Your task to perform on an android device: turn on bluetooth scan Image 0: 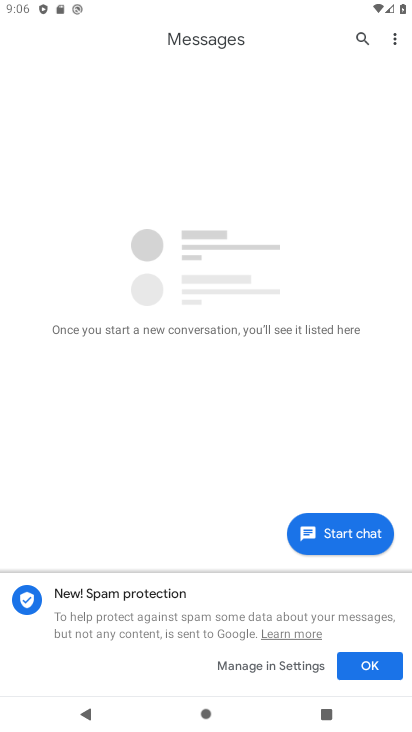
Step 0: press home button
Your task to perform on an android device: turn on bluetooth scan Image 1: 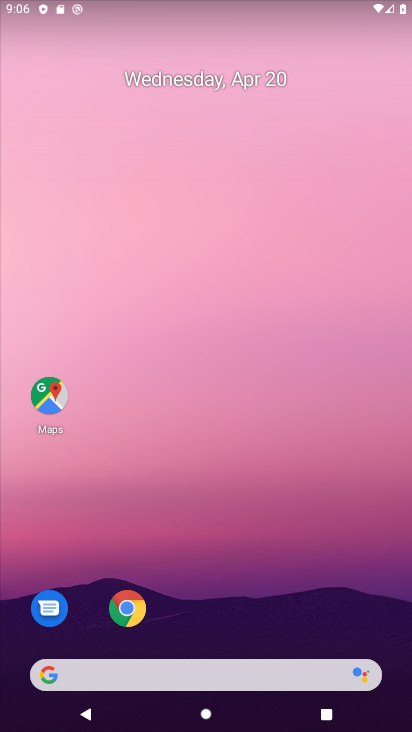
Step 1: drag from (212, 574) to (231, 9)
Your task to perform on an android device: turn on bluetooth scan Image 2: 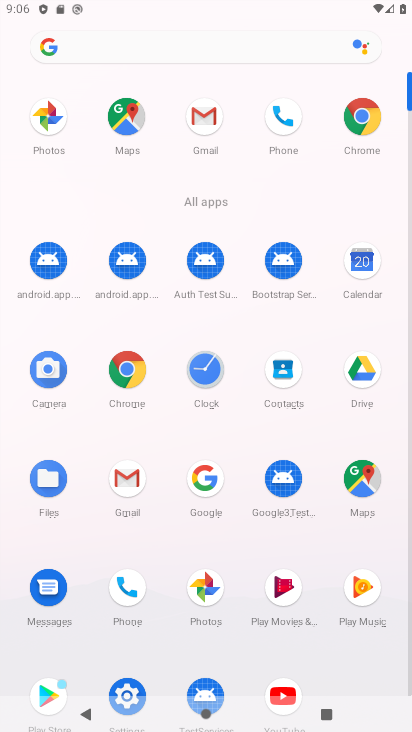
Step 2: click (119, 689)
Your task to perform on an android device: turn on bluetooth scan Image 3: 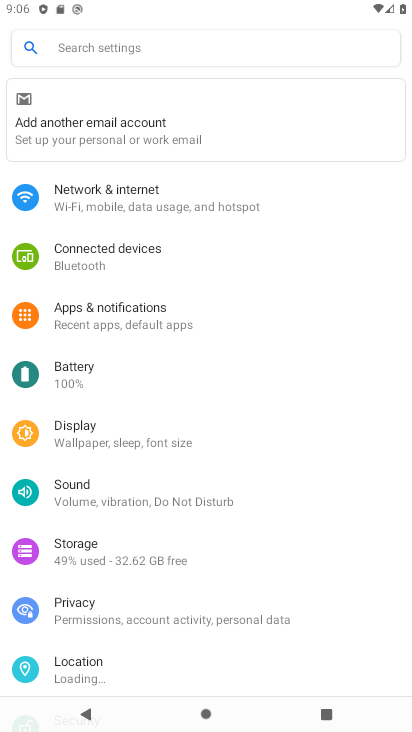
Step 3: click (77, 671)
Your task to perform on an android device: turn on bluetooth scan Image 4: 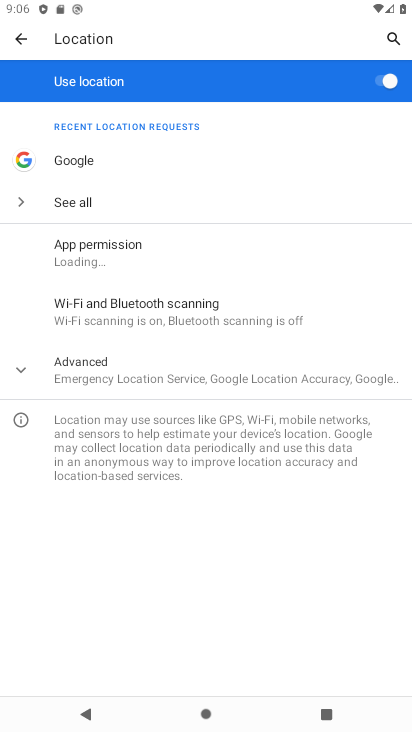
Step 4: click (169, 325)
Your task to perform on an android device: turn on bluetooth scan Image 5: 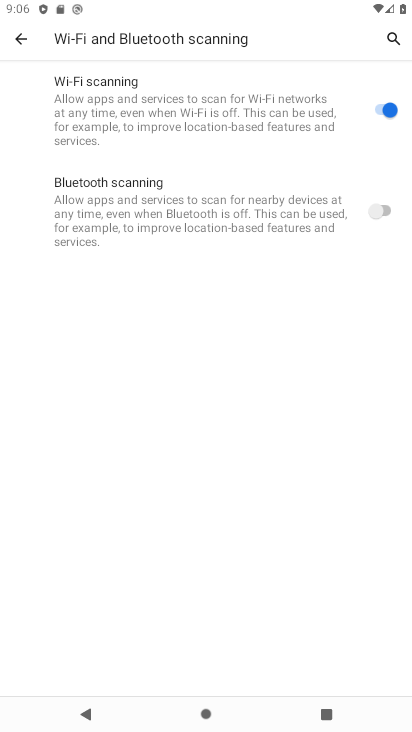
Step 5: click (380, 211)
Your task to perform on an android device: turn on bluetooth scan Image 6: 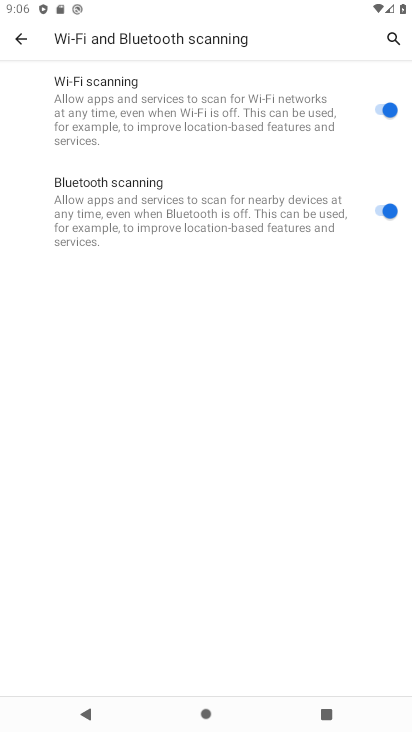
Step 6: task complete